Your task to perform on an android device: turn smart compose on in the gmail app Image 0: 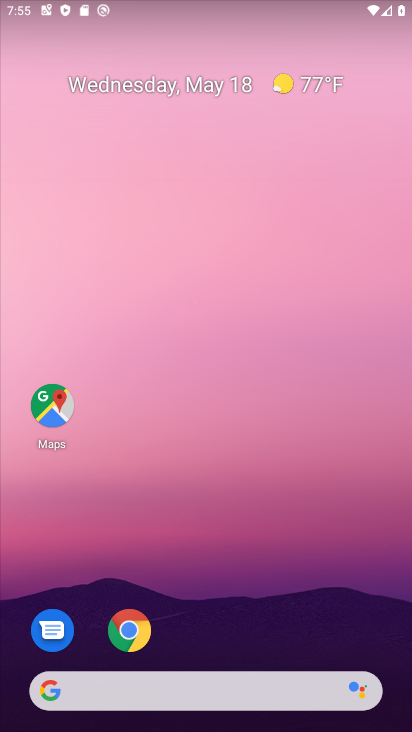
Step 0: drag from (269, 628) to (276, 139)
Your task to perform on an android device: turn smart compose on in the gmail app Image 1: 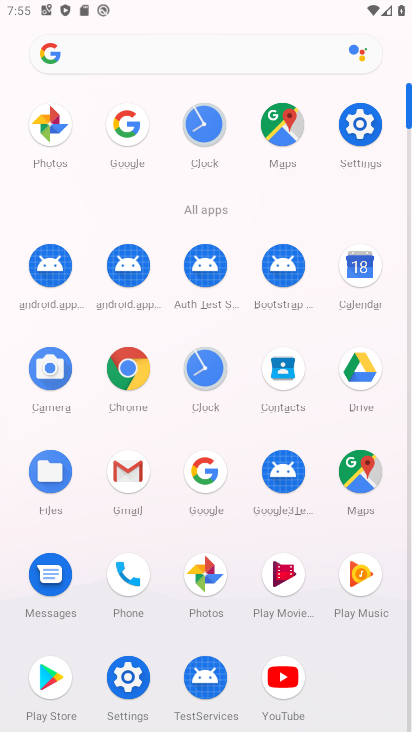
Step 1: click (119, 472)
Your task to perform on an android device: turn smart compose on in the gmail app Image 2: 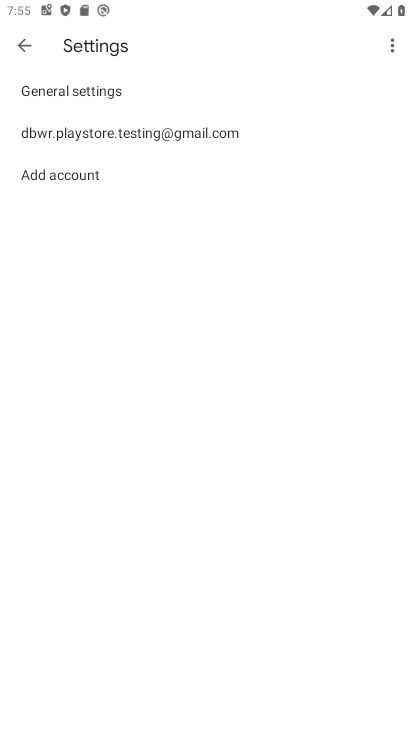
Step 2: click (105, 126)
Your task to perform on an android device: turn smart compose on in the gmail app Image 3: 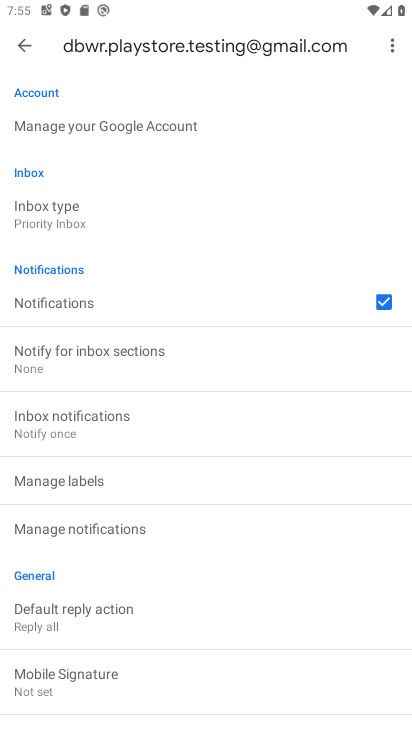
Step 3: task complete